Your task to perform on an android device: remove spam from my inbox in the gmail app Image 0: 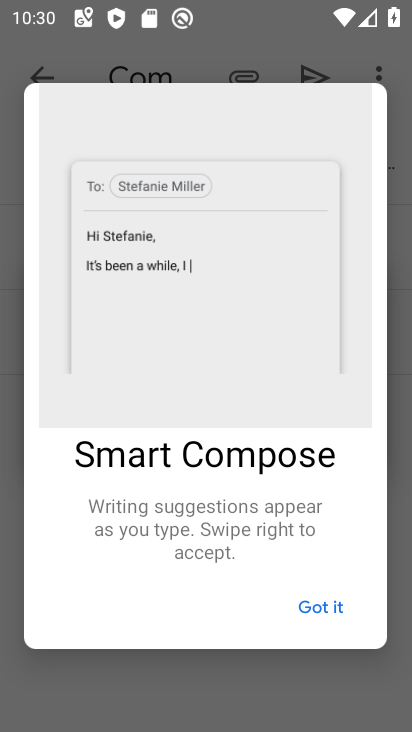
Step 0: click (315, 598)
Your task to perform on an android device: remove spam from my inbox in the gmail app Image 1: 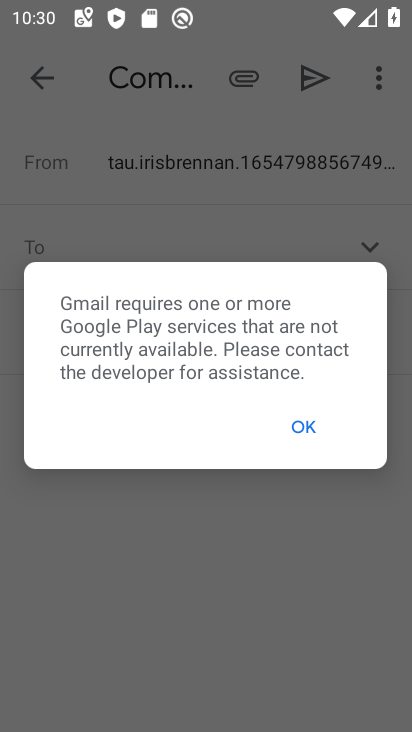
Step 1: press home button
Your task to perform on an android device: remove spam from my inbox in the gmail app Image 2: 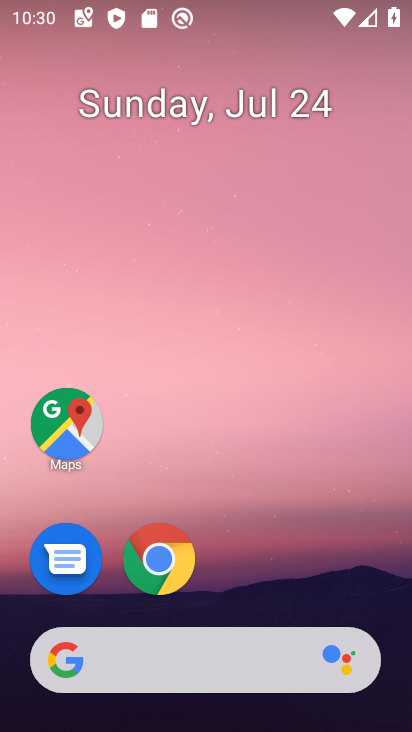
Step 2: drag from (246, 555) to (305, 17)
Your task to perform on an android device: remove spam from my inbox in the gmail app Image 3: 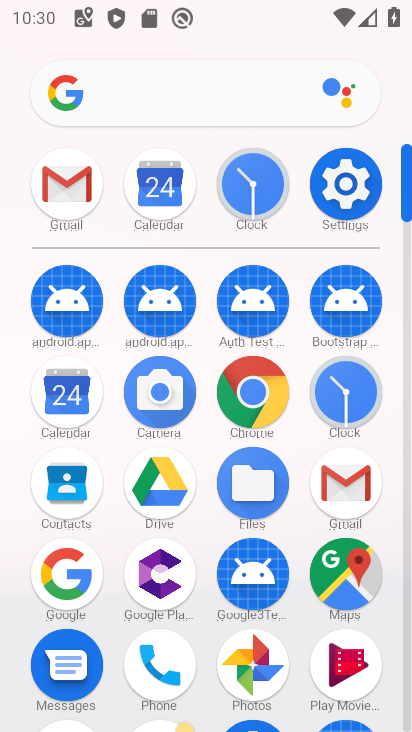
Step 3: click (65, 202)
Your task to perform on an android device: remove spam from my inbox in the gmail app Image 4: 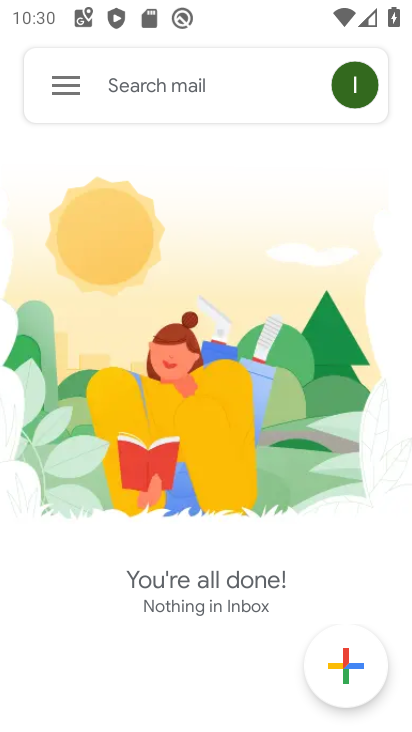
Step 4: click (75, 74)
Your task to perform on an android device: remove spam from my inbox in the gmail app Image 5: 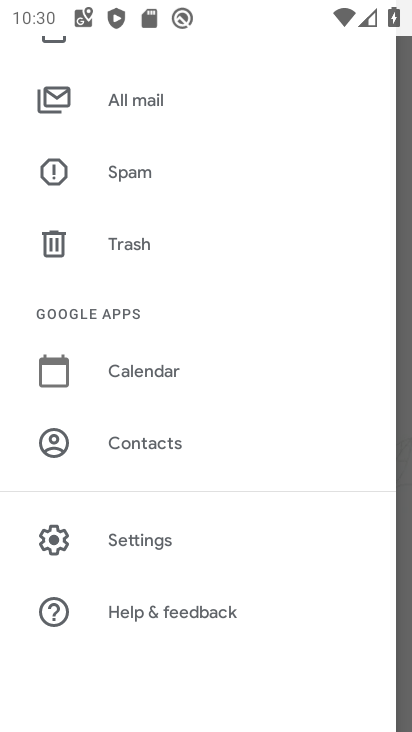
Step 5: click (138, 168)
Your task to perform on an android device: remove spam from my inbox in the gmail app Image 6: 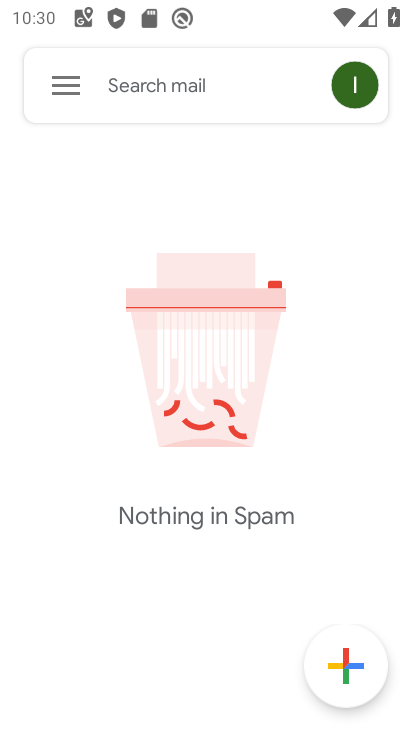
Step 6: task complete